Your task to perform on an android device: Play the last video I watched on Youtube Image 0: 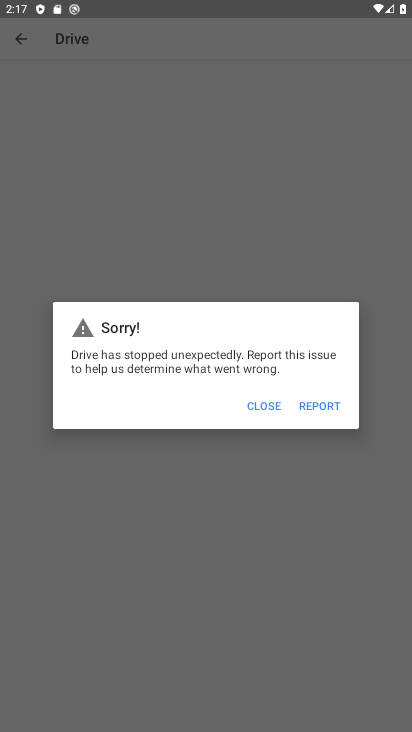
Step 0: press home button
Your task to perform on an android device: Play the last video I watched on Youtube Image 1: 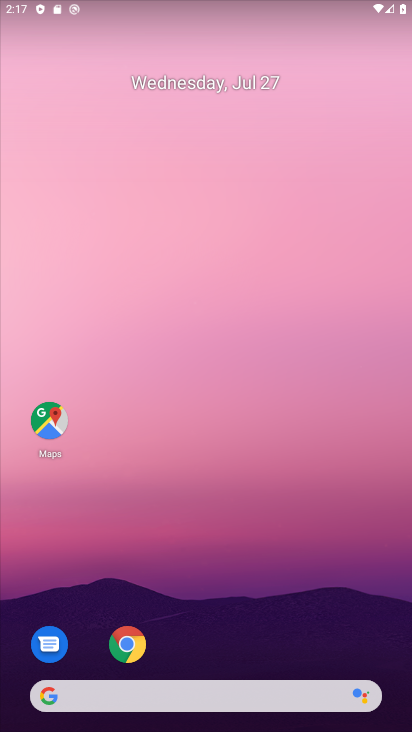
Step 1: drag from (219, 644) to (307, 28)
Your task to perform on an android device: Play the last video I watched on Youtube Image 2: 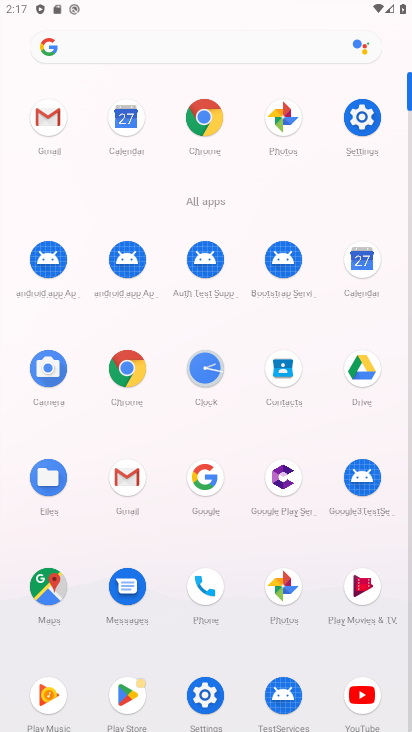
Step 2: drag from (327, 624) to (347, 455)
Your task to perform on an android device: Play the last video I watched on Youtube Image 3: 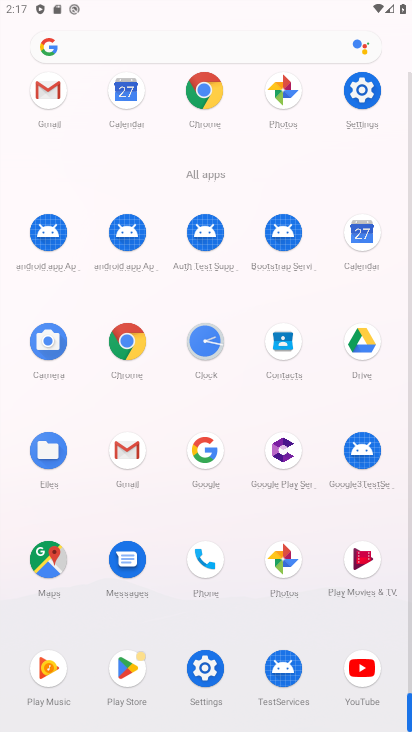
Step 3: click (367, 680)
Your task to perform on an android device: Play the last video I watched on Youtube Image 4: 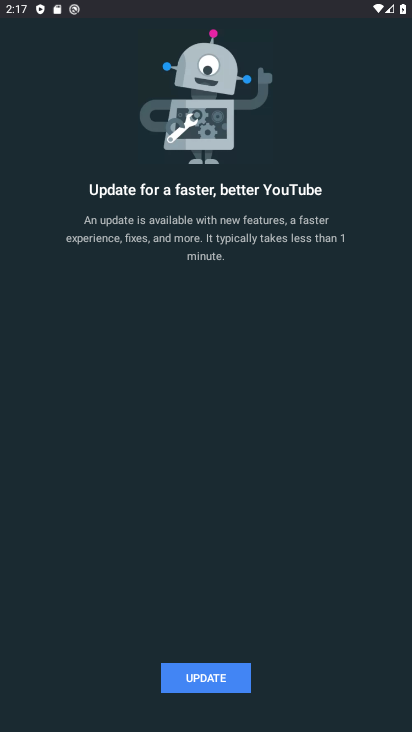
Step 4: click (232, 672)
Your task to perform on an android device: Play the last video I watched on Youtube Image 5: 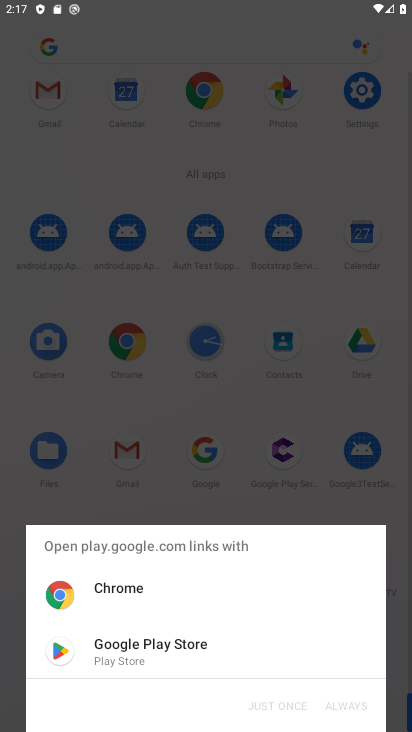
Step 5: click (168, 644)
Your task to perform on an android device: Play the last video I watched on Youtube Image 6: 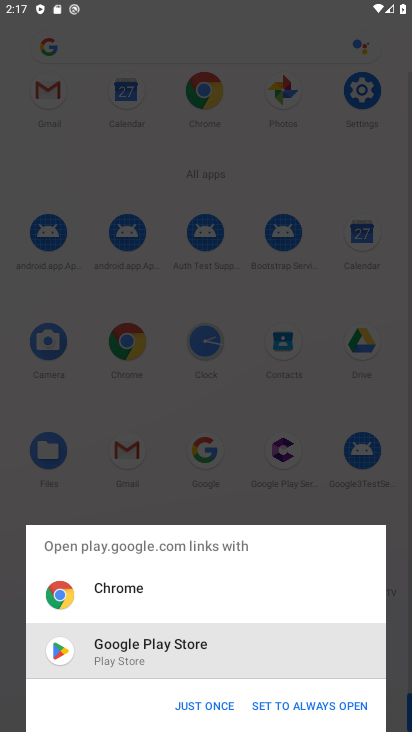
Step 6: click (221, 707)
Your task to perform on an android device: Play the last video I watched on Youtube Image 7: 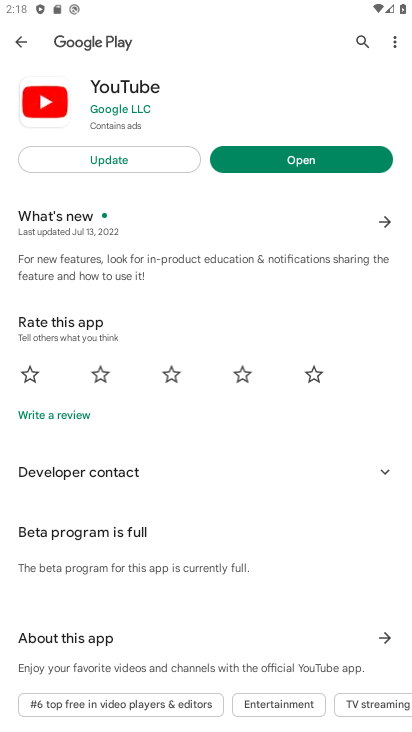
Step 7: click (156, 160)
Your task to perform on an android device: Play the last video I watched on Youtube Image 8: 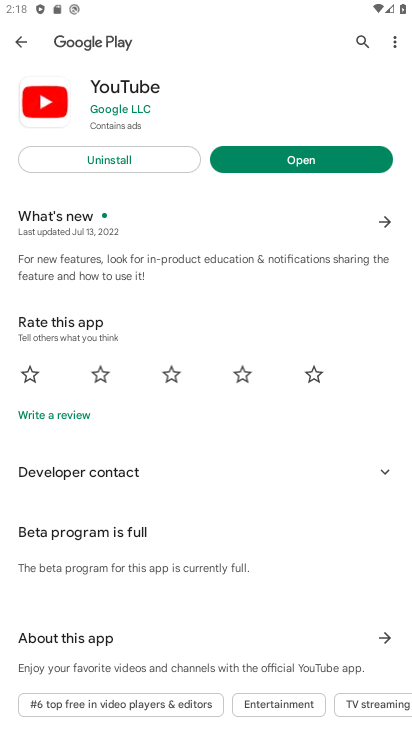
Step 8: click (266, 154)
Your task to perform on an android device: Play the last video I watched on Youtube Image 9: 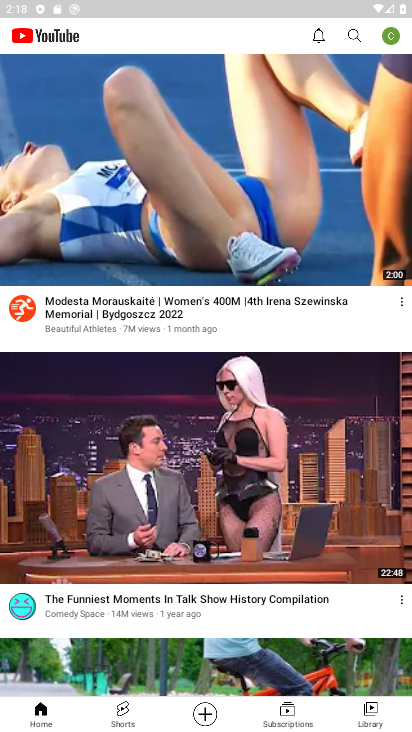
Step 9: click (369, 712)
Your task to perform on an android device: Play the last video I watched on Youtube Image 10: 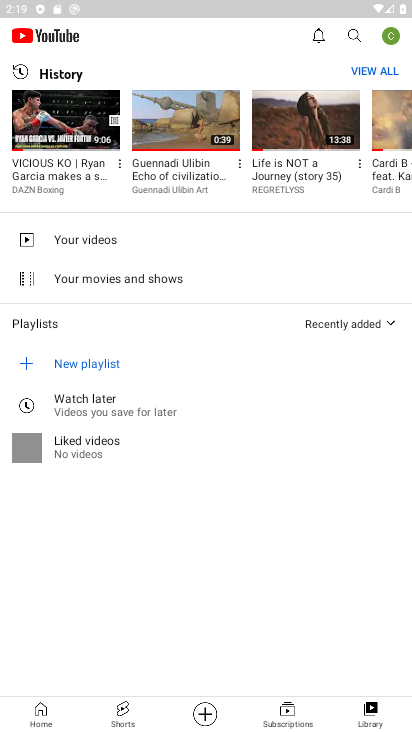
Step 10: click (78, 130)
Your task to perform on an android device: Play the last video I watched on Youtube Image 11: 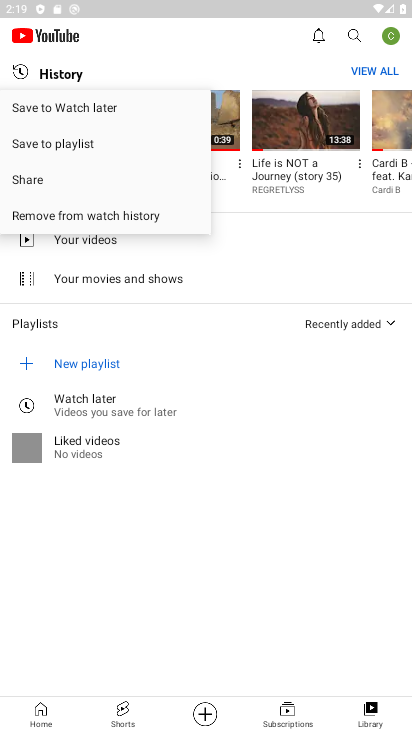
Step 11: drag from (265, 572) to (287, 416)
Your task to perform on an android device: Play the last video I watched on Youtube Image 12: 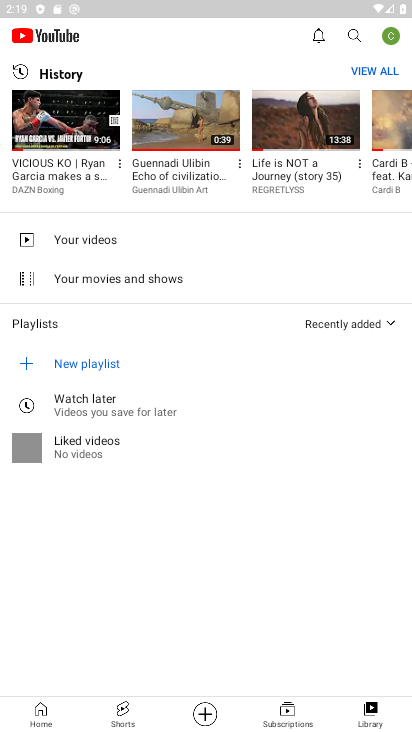
Step 12: click (66, 143)
Your task to perform on an android device: Play the last video I watched on Youtube Image 13: 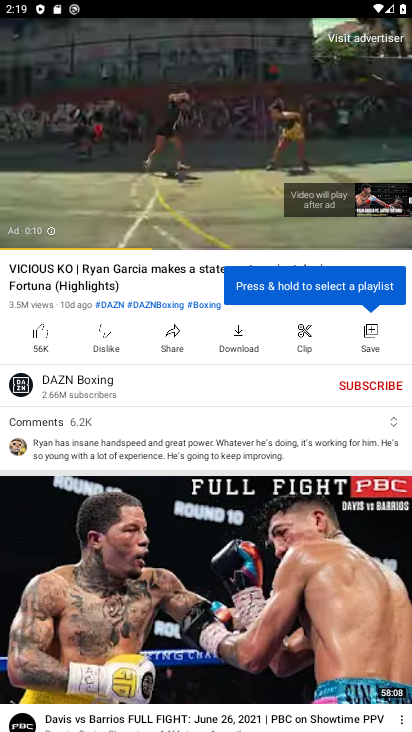
Step 13: task complete